Your task to perform on an android device: turn on wifi Image 0: 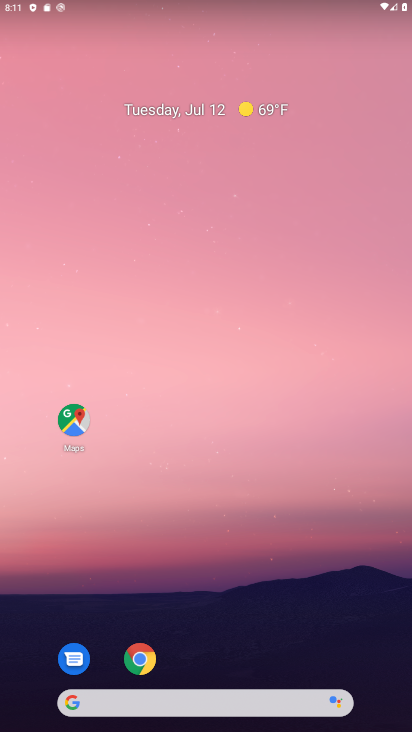
Step 0: drag from (282, 622) to (159, 51)
Your task to perform on an android device: turn on wifi Image 1: 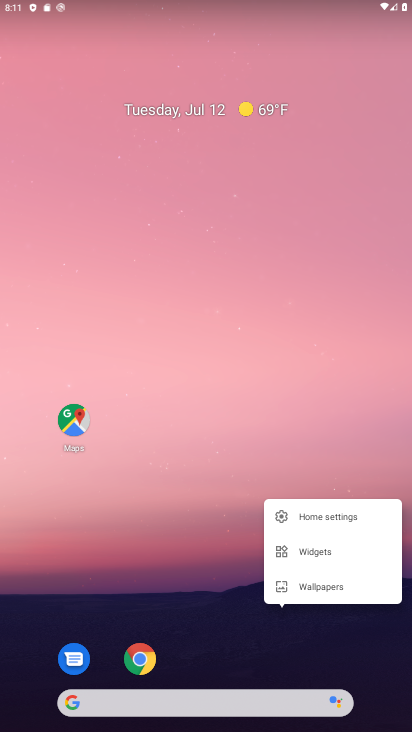
Step 1: click (376, 657)
Your task to perform on an android device: turn on wifi Image 2: 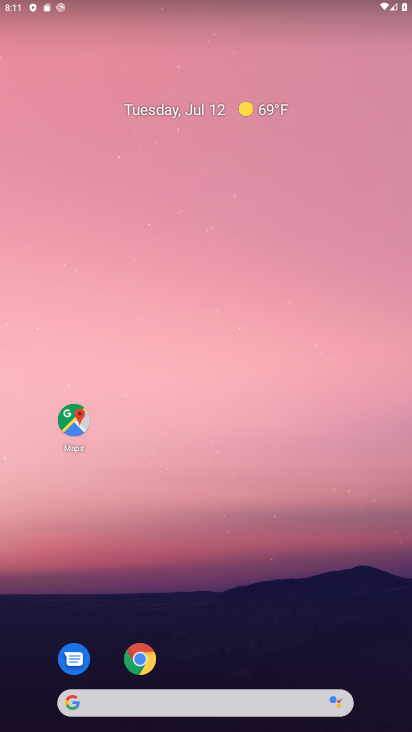
Step 2: drag from (376, 657) to (299, 160)
Your task to perform on an android device: turn on wifi Image 3: 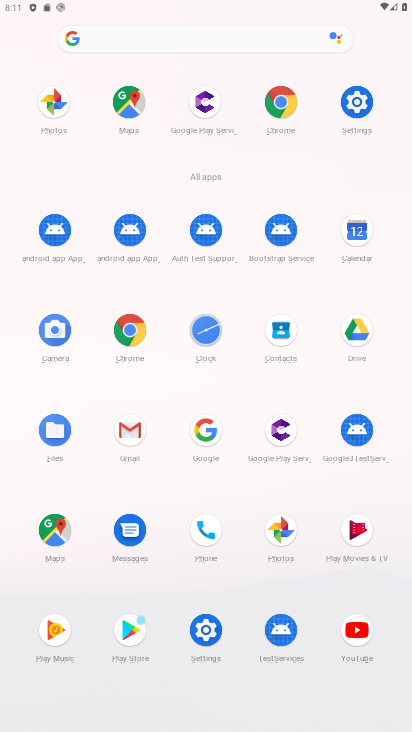
Step 3: click (355, 112)
Your task to perform on an android device: turn on wifi Image 4: 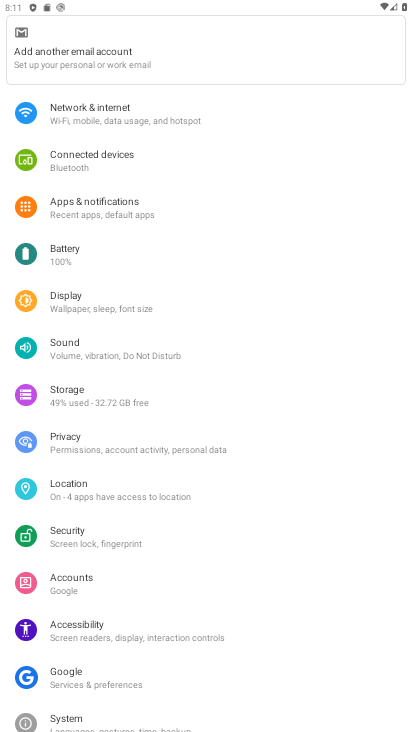
Step 4: click (286, 125)
Your task to perform on an android device: turn on wifi Image 5: 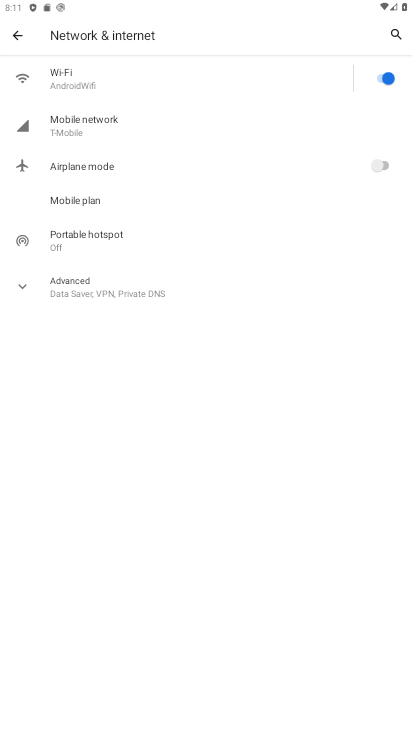
Step 5: task complete